Your task to perform on an android device: Turn on the flashlight Image 0: 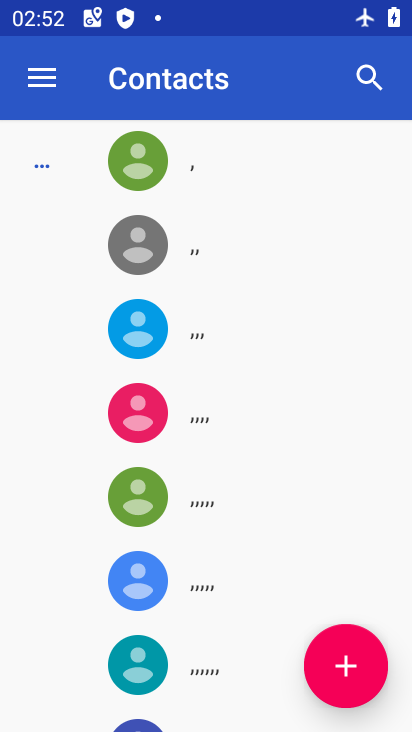
Step 0: drag from (271, 85) to (253, 308)
Your task to perform on an android device: Turn on the flashlight Image 1: 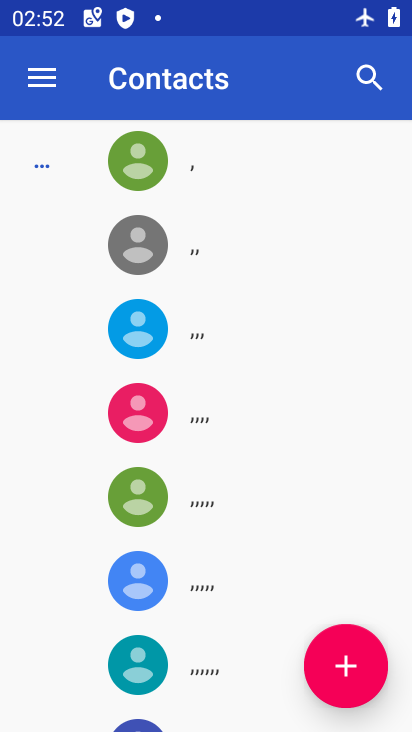
Step 1: task complete